Your task to perform on an android device: open wifi settings Image 0: 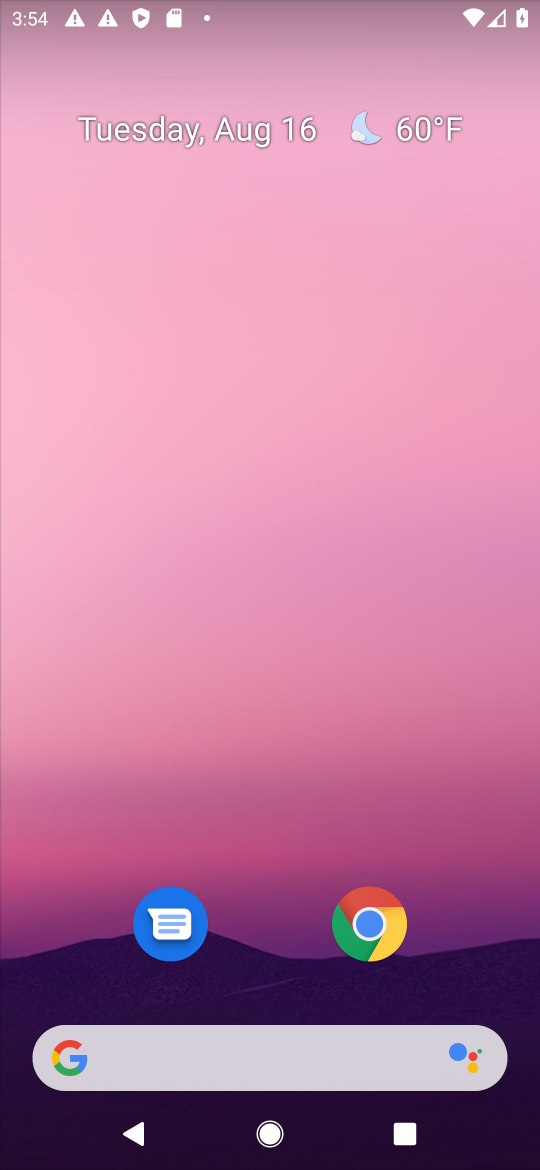
Step 0: drag from (228, 15) to (343, 853)
Your task to perform on an android device: open wifi settings Image 1: 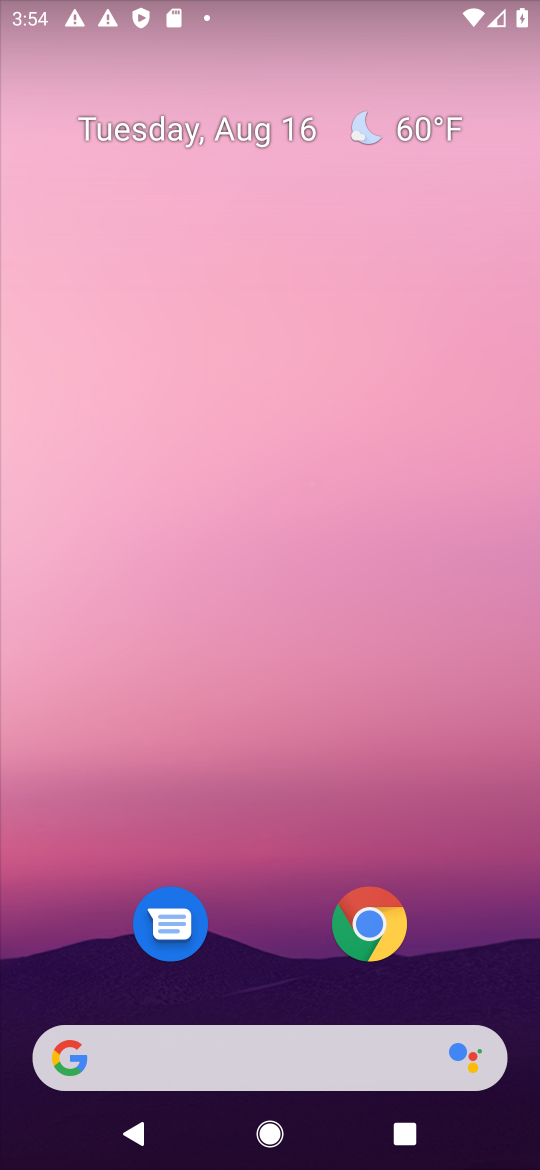
Step 1: drag from (247, 12) to (270, 1087)
Your task to perform on an android device: open wifi settings Image 2: 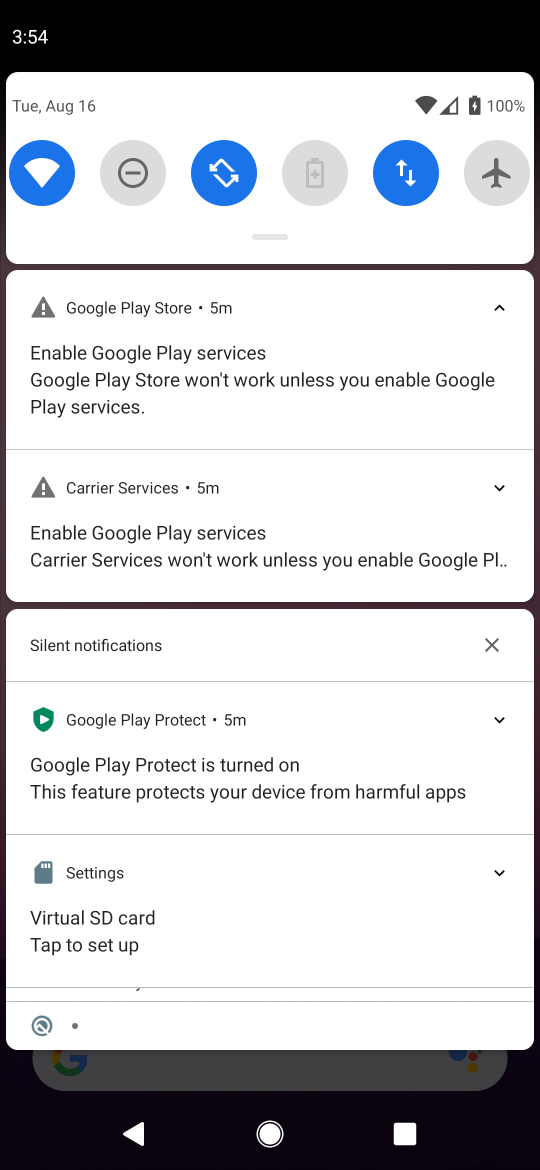
Step 2: click (52, 197)
Your task to perform on an android device: open wifi settings Image 3: 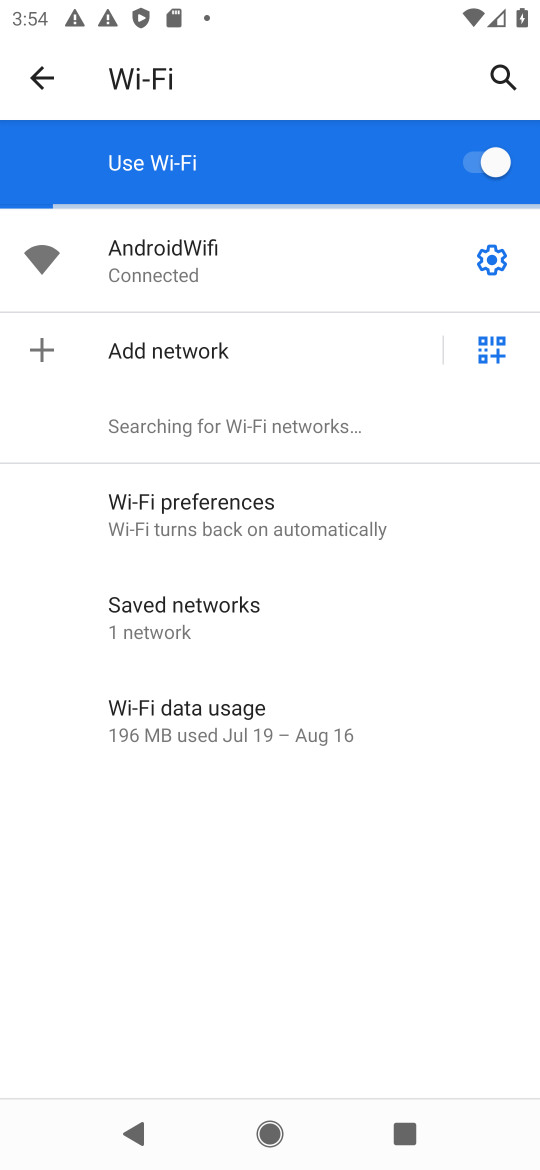
Step 3: task complete